Your task to perform on an android device: Go to notification settings Image 0: 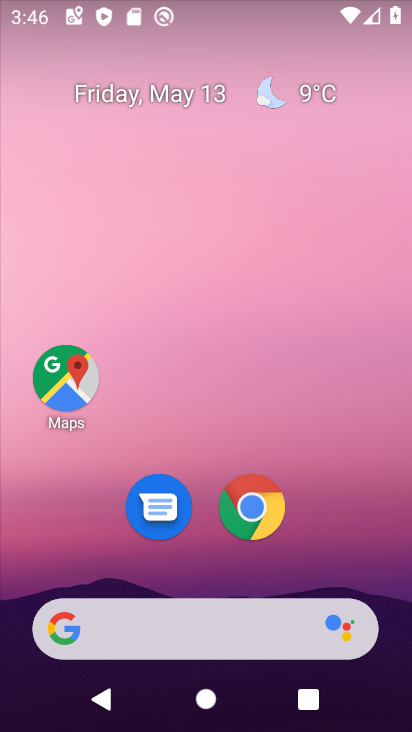
Step 0: drag from (361, 511) to (326, 101)
Your task to perform on an android device: Go to notification settings Image 1: 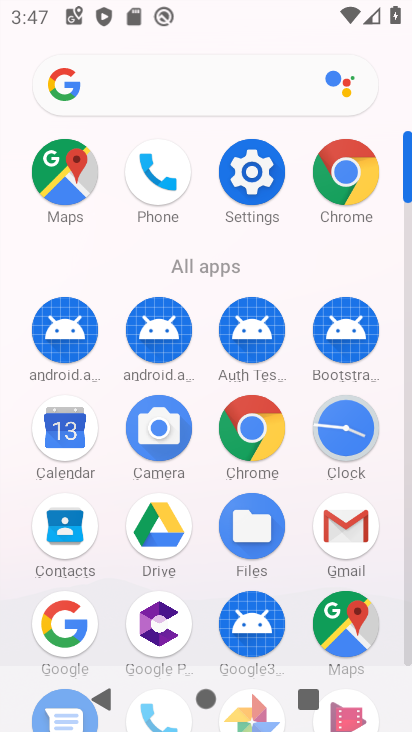
Step 1: click (246, 176)
Your task to perform on an android device: Go to notification settings Image 2: 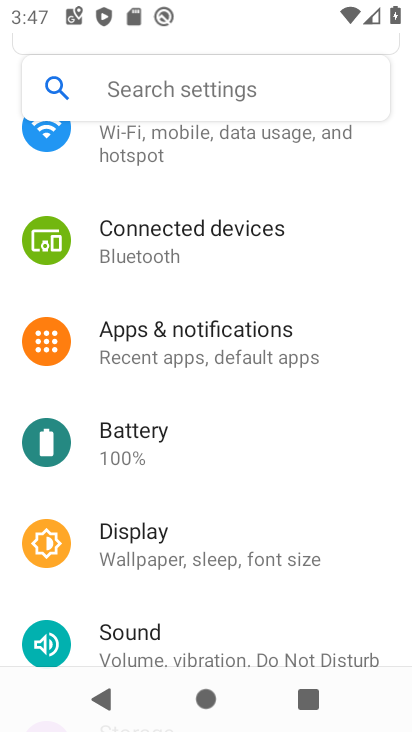
Step 2: click (270, 314)
Your task to perform on an android device: Go to notification settings Image 3: 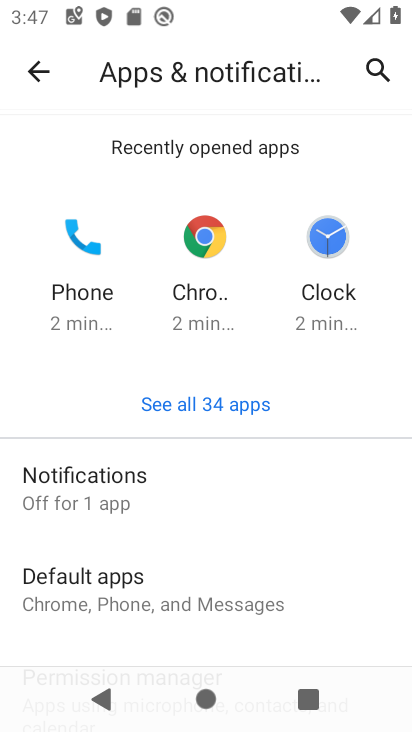
Step 3: click (78, 483)
Your task to perform on an android device: Go to notification settings Image 4: 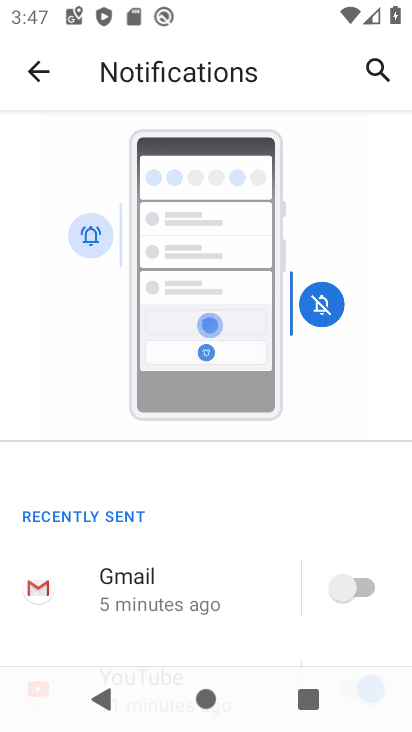
Step 4: task complete